Your task to perform on an android device: toggle notification dots Image 0: 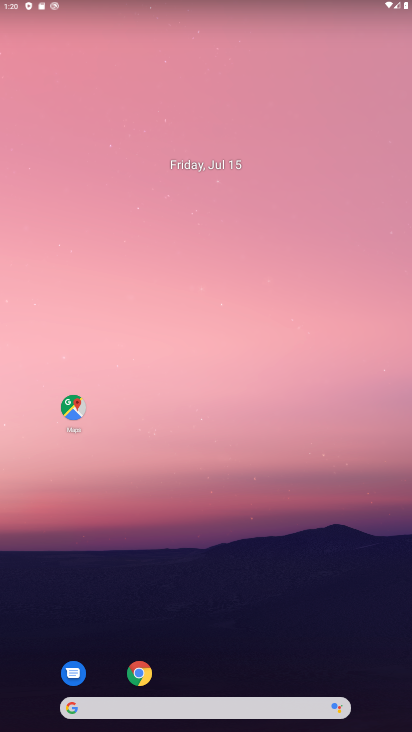
Step 0: drag from (288, 644) to (377, 140)
Your task to perform on an android device: toggle notification dots Image 1: 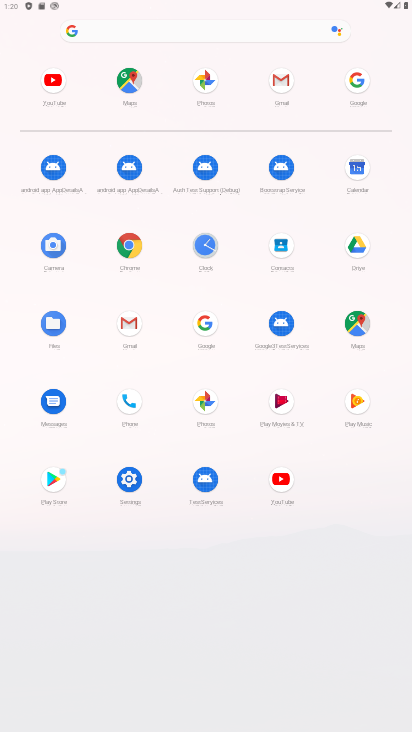
Step 1: click (137, 484)
Your task to perform on an android device: toggle notification dots Image 2: 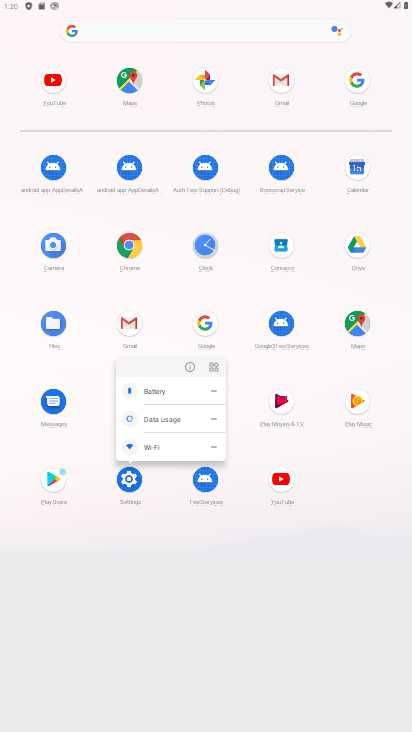
Step 2: click (132, 491)
Your task to perform on an android device: toggle notification dots Image 3: 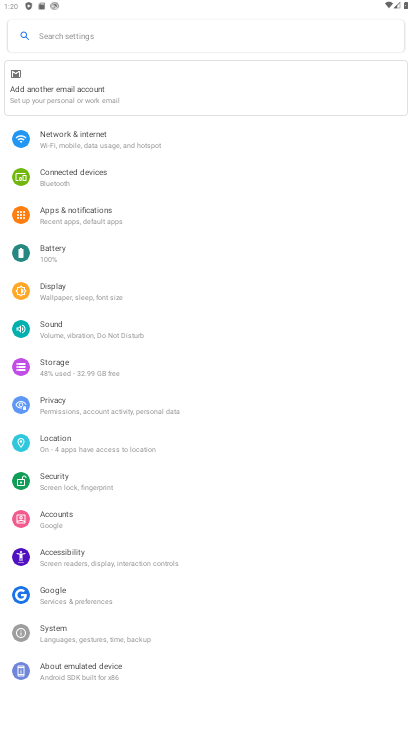
Step 3: click (98, 215)
Your task to perform on an android device: toggle notification dots Image 4: 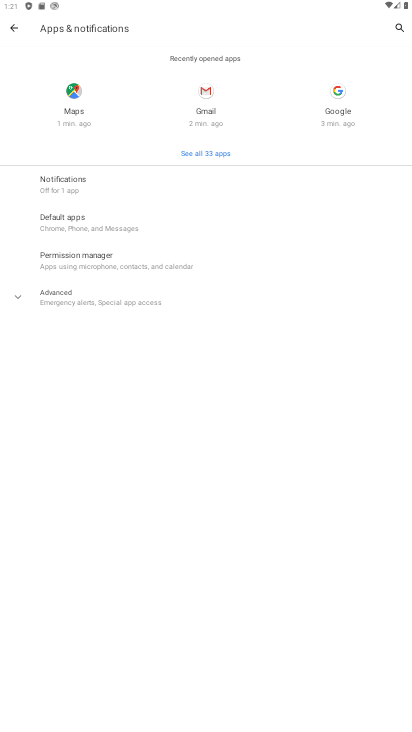
Step 4: click (76, 182)
Your task to perform on an android device: toggle notification dots Image 5: 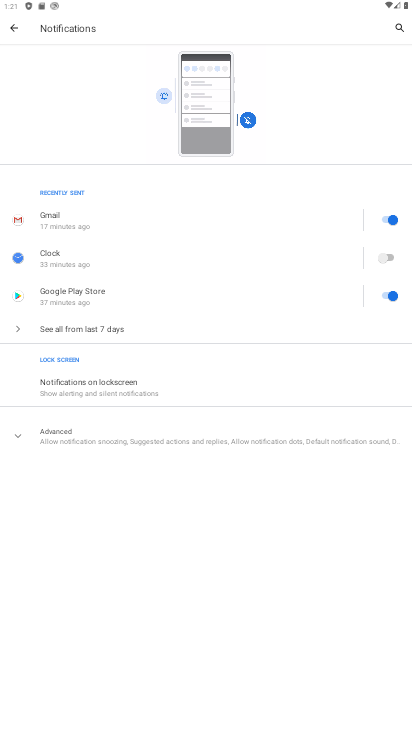
Step 5: click (60, 432)
Your task to perform on an android device: toggle notification dots Image 6: 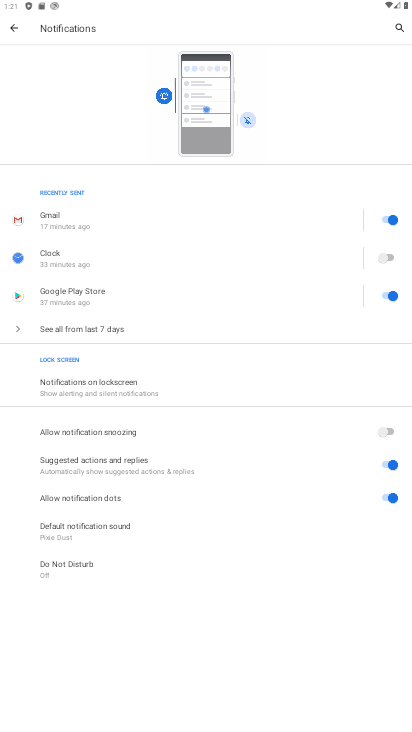
Step 6: click (397, 497)
Your task to perform on an android device: toggle notification dots Image 7: 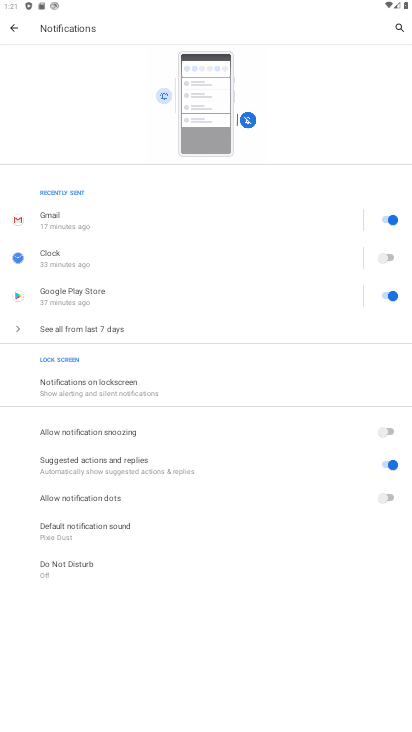
Step 7: task complete